Your task to perform on an android device: Empty the shopping cart on bestbuy. Search for duracell triple a on bestbuy, select the first entry, add it to the cart, then select checkout. Image 0: 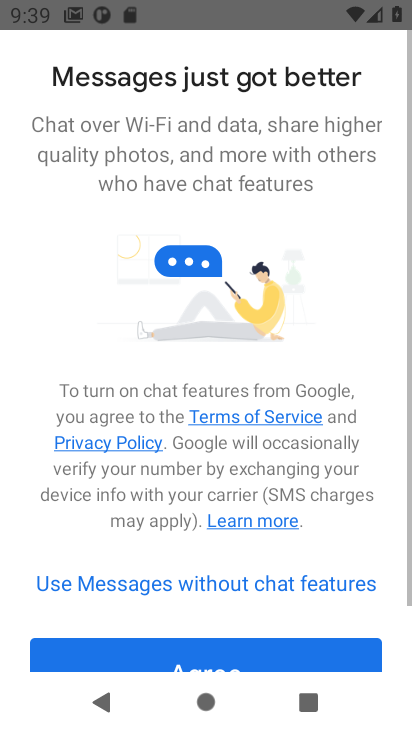
Step 0: press home button
Your task to perform on an android device: Empty the shopping cart on bestbuy. Search for duracell triple a on bestbuy, select the first entry, add it to the cart, then select checkout. Image 1: 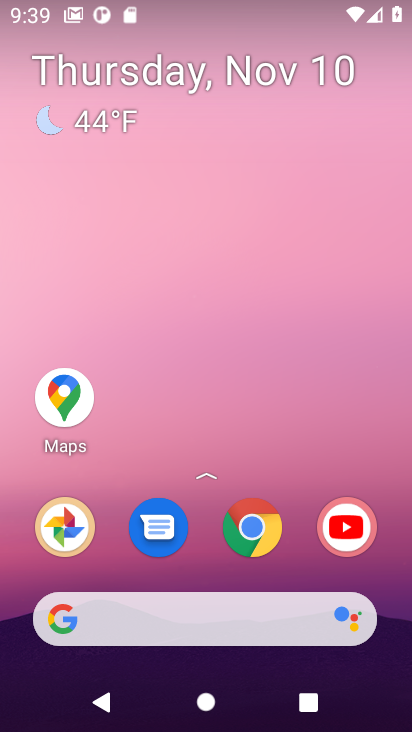
Step 1: drag from (150, 607) to (179, 97)
Your task to perform on an android device: Empty the shopping cart on bestbuy. Search for duracell triple a on bestbuy, select the first entry, add it to the cart, then select checkout. Image 2: 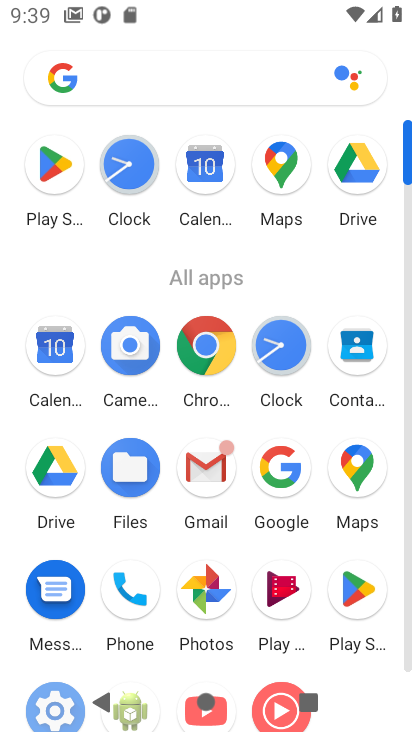
Step 2: click (218, 340)
Your task to perform on an android device: Empty the shopping cart on bestbuy. Search for duracell triple a on bestbuy, select the first entry, add it to the cart, then select checkout. Image 3: 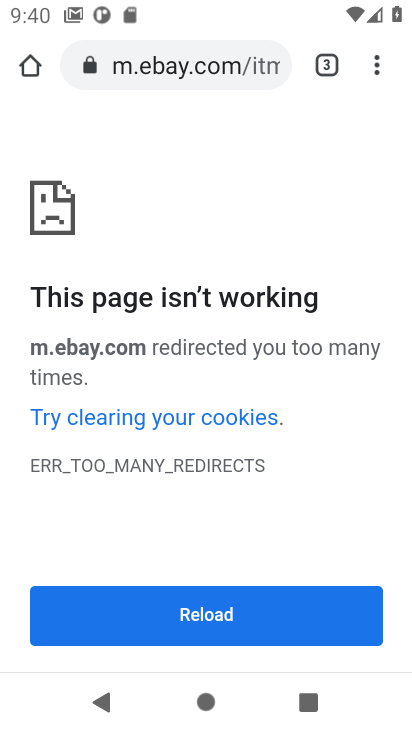
Step 3: click (172, 75)
Your task to perform on an android device: Empty the shopping cart on bestbuy. Search for duracell triple a on bestbuy, select the first entry, add it to the cart, then select checkout. Image 4: 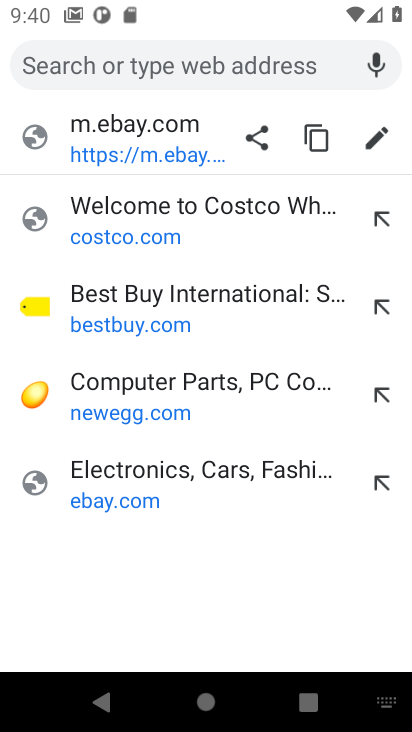
Step 4: type "bestbuy"
Your task to perform on an android device: Empty the shopping cart on bestbuy. Search for duracell triple a on bestbuy, select the first entry, add it to the cart, then select checkout. Image 5: 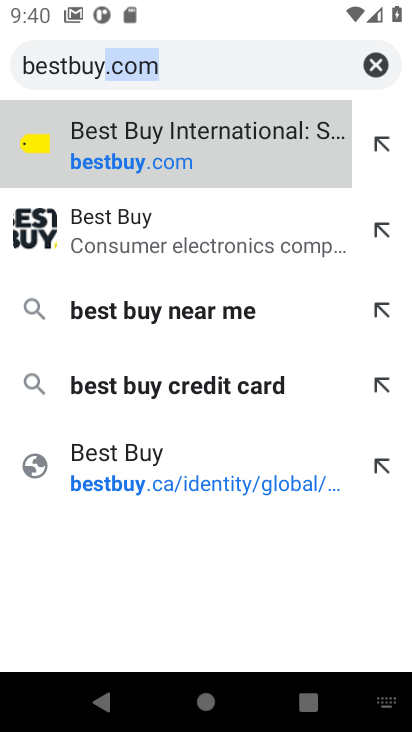
Step 5: press enter
Your task to perform on an android device: Empty the shopping cart on bestbuy. Search for duracell triple a on bestbuy, select the first entry, add it to the cart, then select checkout. Image 6: 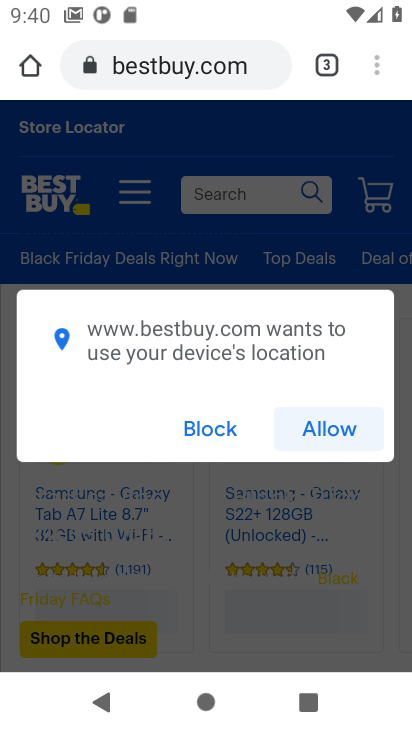
Step 6: click (324, 427)
Your task to perform on an android device: Empty the shopping cart on bestbuy. Search for duracell triple a on bestbuy, select the first entry, add it to the cart, then select checkout. Image 7: 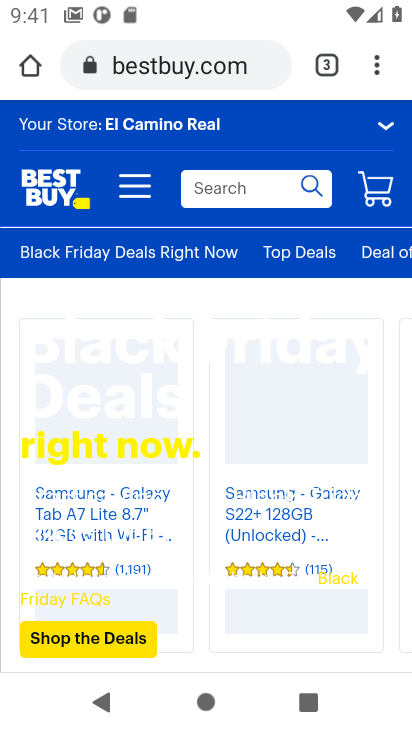
Step 7: click (383, 180)
Your task to perform on an android device: Empty the shopping cart on bestbuy. Search for duracell triple a on bestbuy, select the first entry, add it to the cart, then select checkout. Image 8: 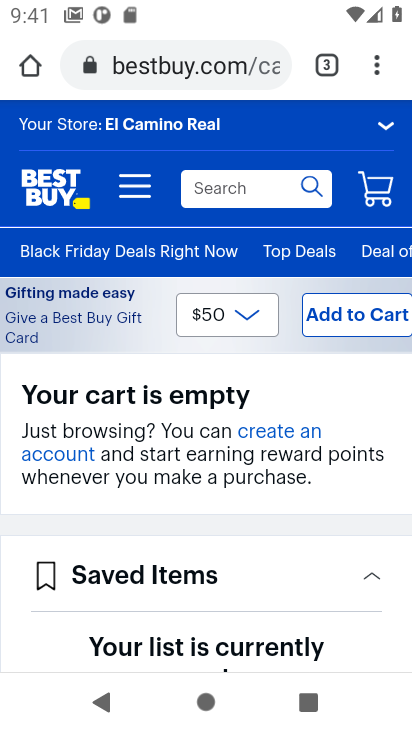
Step 8: click (192, 197)
Your task to perform on an android device: Empty the shopping cart on bestbuy. Search for duracell triple a on bestbuy, select the first entry, add it to the cart, then select checkout. Image 9: 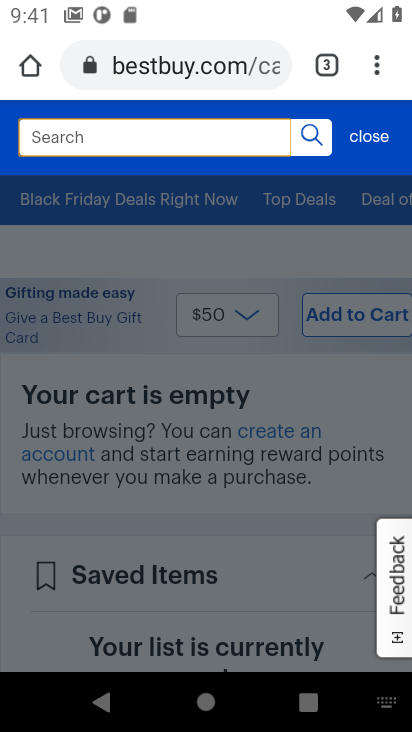
Step 9: type "duracell triple "
Your task to perform on an android device: Empty the shopping cart on bestbuy. Search for duracell triple a on bestbuy, select the first entry, add it to the cart, then select checkout. Image 10: 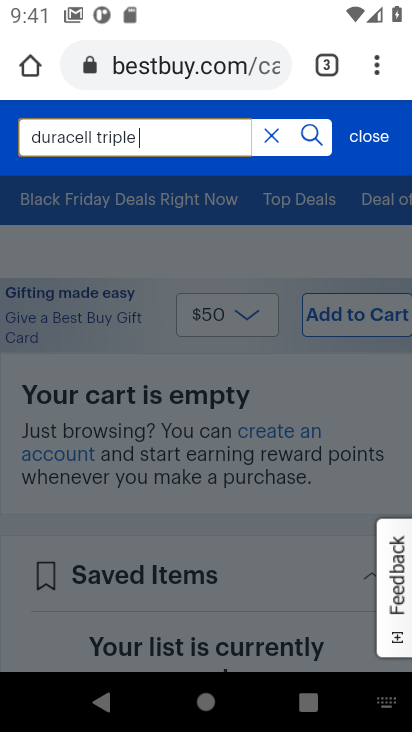
Step 10: press enter
Your task to perform on an android device: Empty the shopping cart on bestbuy. Search for duracell triple a on bestbuy, select the first entry, add it to the cart, then select checkout. Image 11: 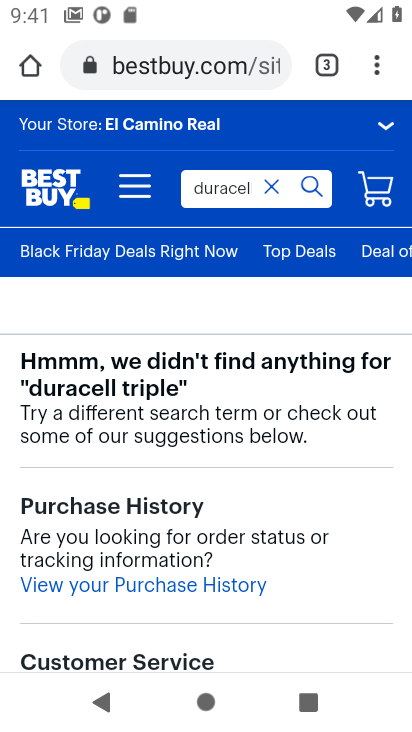
Step 11: drag from (186, 493) to (263, 317)
Your task to perform on an android device: Empty the shopping cart on bestbuy. Search for duracell triple a on bestbuy, select the first entry, add it to the cart, then select checkout. Image 12: 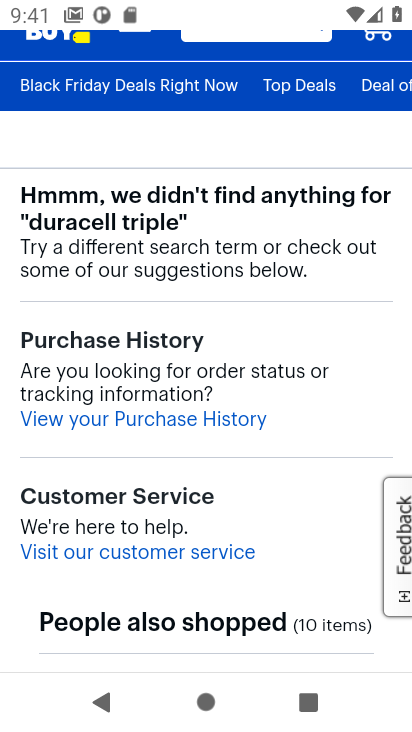
Step 12: drag from (250, 504) to (327, 234)
Your task to perform on an android device: Empty the shopping cart on bestbuy. Search for duracell triple a on bestbuy, select the first entry, add it to the cart, then select checkout. Image 13: 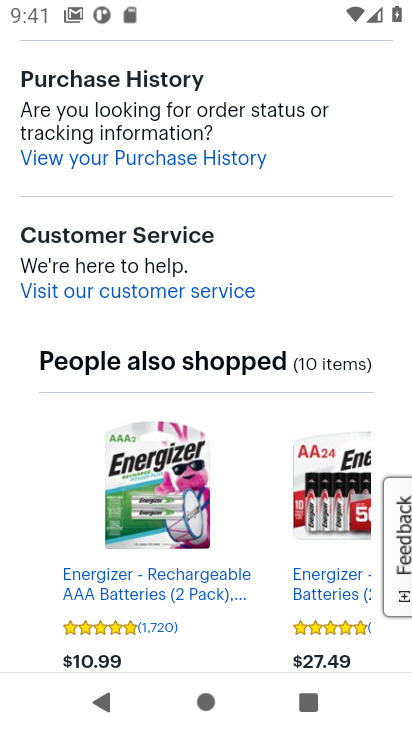
Step 13: drag from (232, 519) to (232, 280)
Your task to perform on an android device: Empty the shopping cart on bestbuy. Search for duracell triple a on bestbuy, select the first entry, add it to the cart, then select checkout. Image 14: 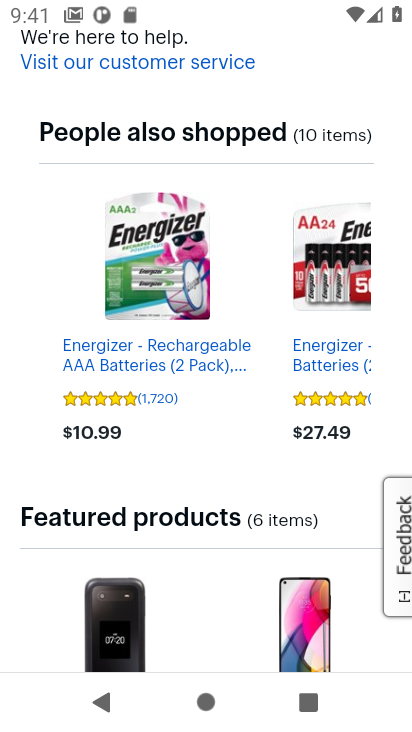
Step 14: click (147, 358)
Your task to perform on an android device: Empty the shopping cart on bestbuy. Search for duracell triple a on bestbuy, select the first entry, add it to the cart, then select checkout. Image 15: 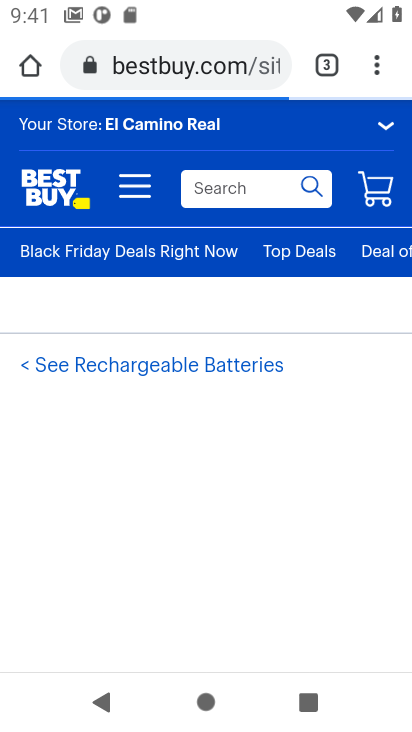
Step 15: click (218, 195)
Your task to perform on an android device: Empty the shopping cart on bestbuy. Search for duracell triple a on bestbuy, select the first entry, add it to the cart, then select checkout. Image 16: 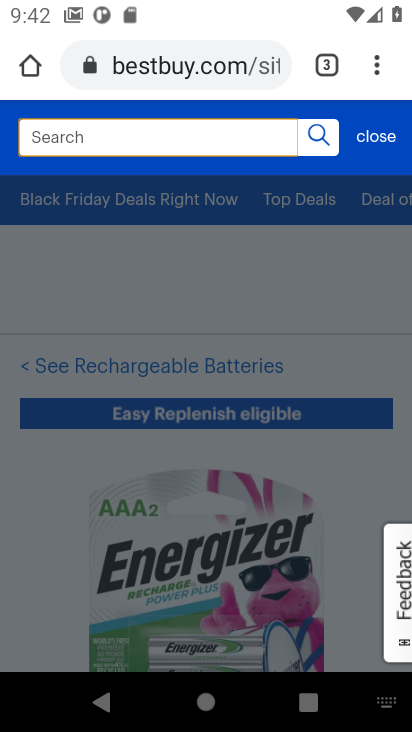
Step 16: type "duracell triple "
Your task to perform on an android device: Empty the shopping cart on bestbuy. Search for duracell triple a on bestbuy, select the first entry, add it to the cart, then select checkout. Image 17: 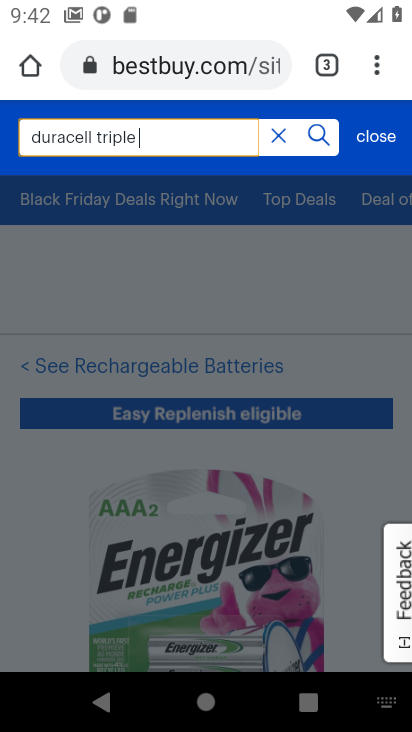
Step 17: press enter
Your task to perform on an android device: Empty the shopping cart on bestbuy. Search for duracell triple a on bestbuy, select the first entry, add it to the cart, then select checkout. Image 18: 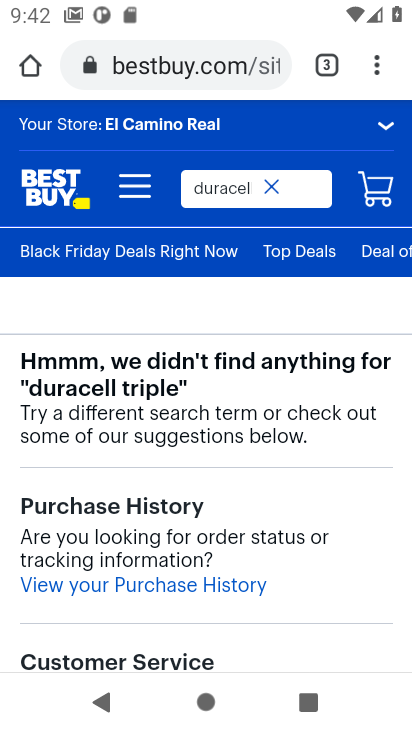
Step 18: task complete